Your task to perform on an android device: Open accessibility settings Image 0: 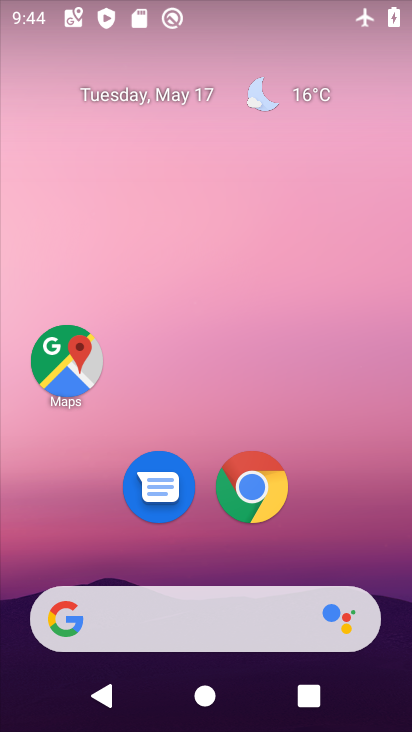
Step 0: drag from (202, 563) to (254, 99)
Your task to perform on an android device: Open accessibility settings Image 1: 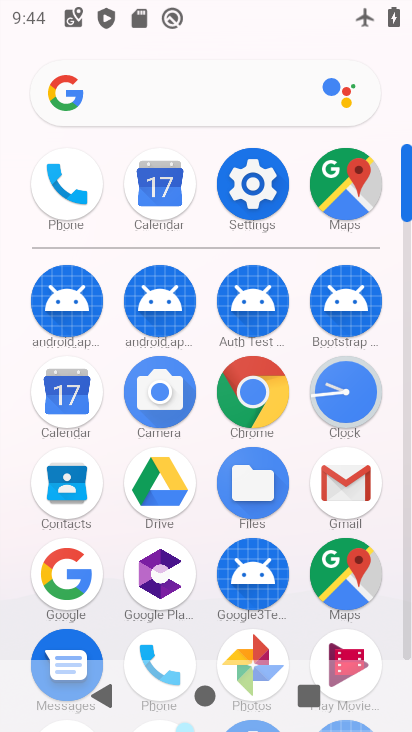
Step 1: click (243, 193)
Your task to perform on an android device: Open accessibility settings Image 2: 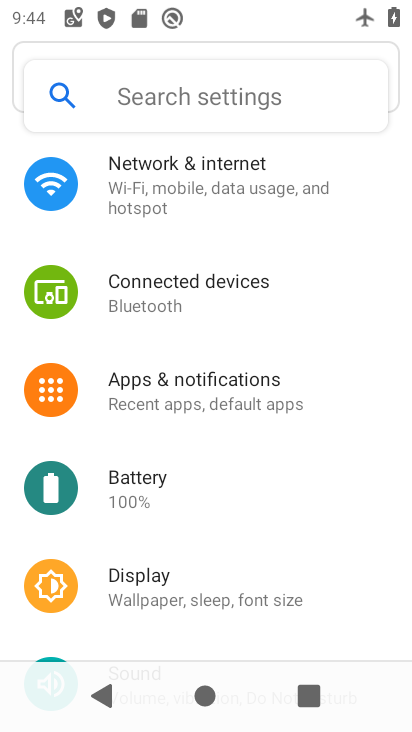
Step 2: drag from (178, 496) to (226, 191)
Your task to perform on an android device: Open accessibility settings Image 3: 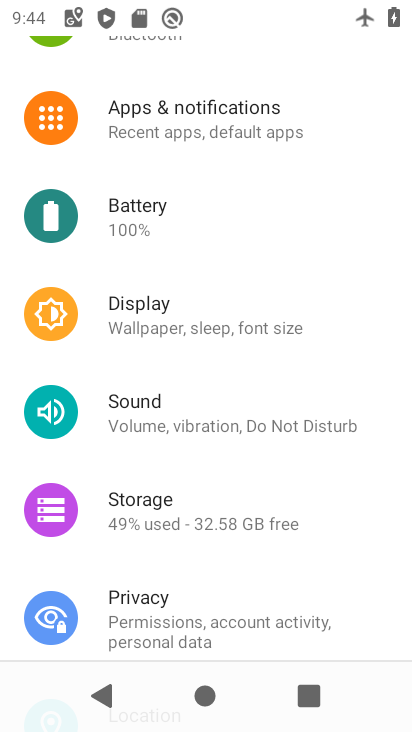
Step 3: drag from (188, 478) to (240, 153)
Your task to perform on an android device: Open accessibility settings Image 4: 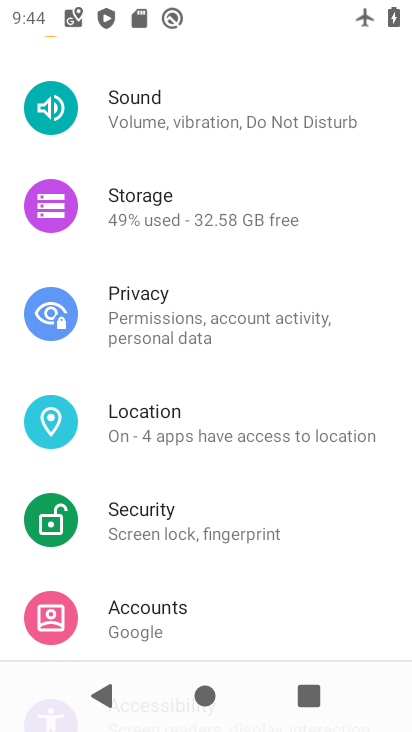
Step 4: drag from (151, 593) to (200, 236)
Your task to perform on an android device: Open accessibility settings Image 5: 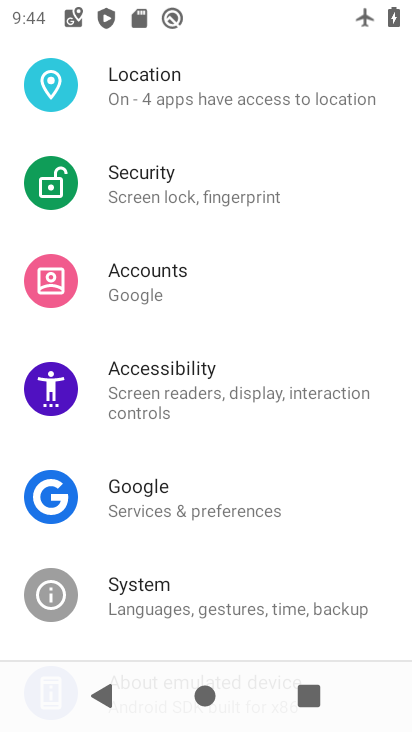
Step 5: click (167, 413)
Your task to perform on an android device: Open accessibility settings Image 6: 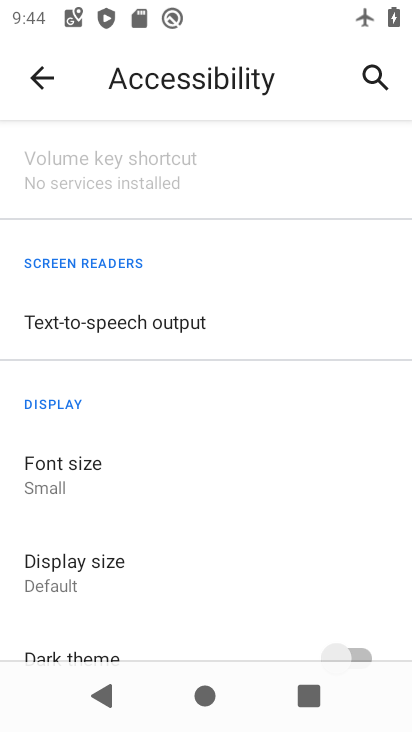
Step 6: task complete